Your task to perform on an android device: see creations saved in the google photos Image 0: 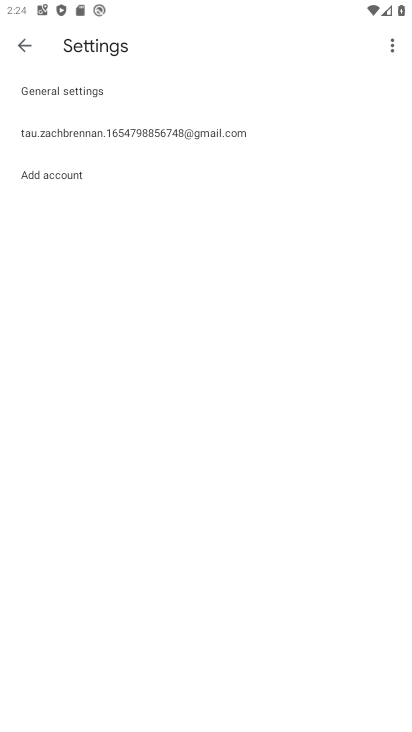
Step 0: press home button
Your task to perform on an android device: see creations saved in the google photos Image 1: 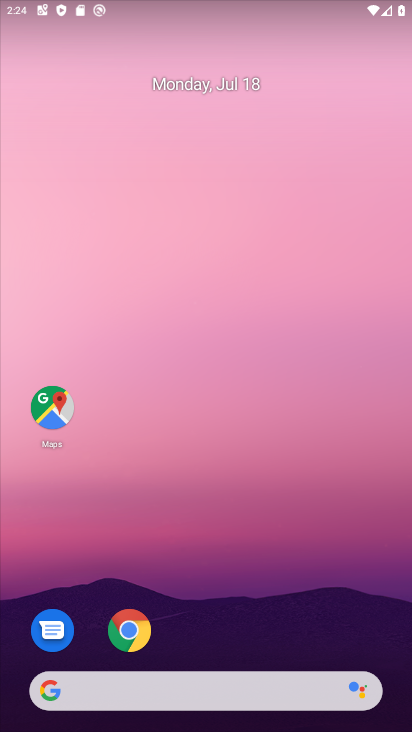
Step 1: drag from (352, 633) to (321, 95)
Your task to perform on an android device: see creations saved in the google photos Image 2: 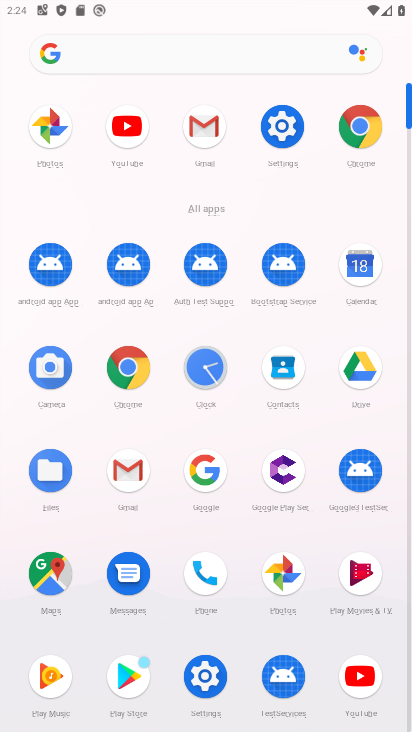
Step 2: click (283, 573)
Your task to perform on an android device: see creations saved in the google photos Image 3: 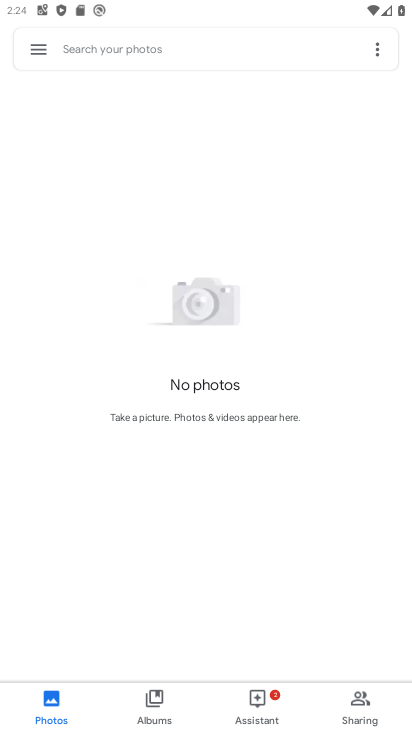
Step 3: task complete